Your task to perform on an android device: Open eBay Image 0: 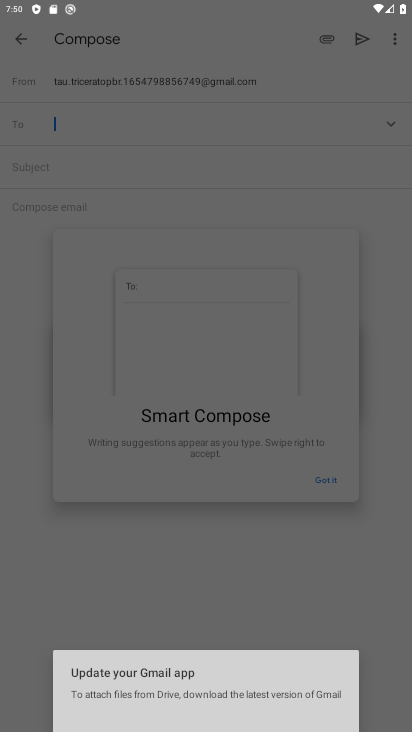
Step 0: press home button
Your task to perform on an android device: Open eBay Image 1: 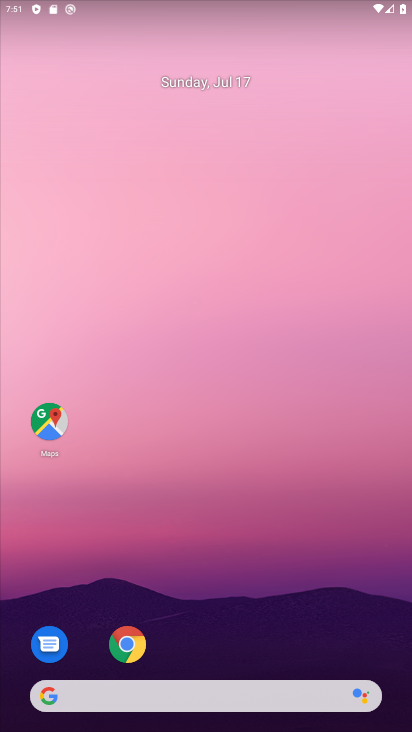
Step 1: click (120, 641)
Your task to perform on an android device: Open eBay Image 2: 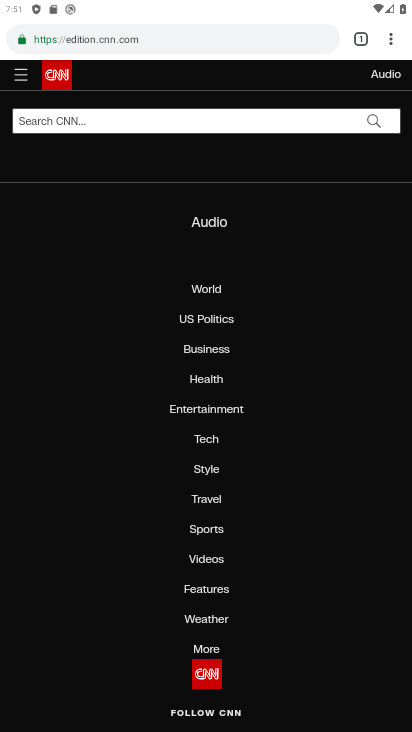
Step 2: click (194, 31)
Your task to perform on an android device: Open eBay Image 3: 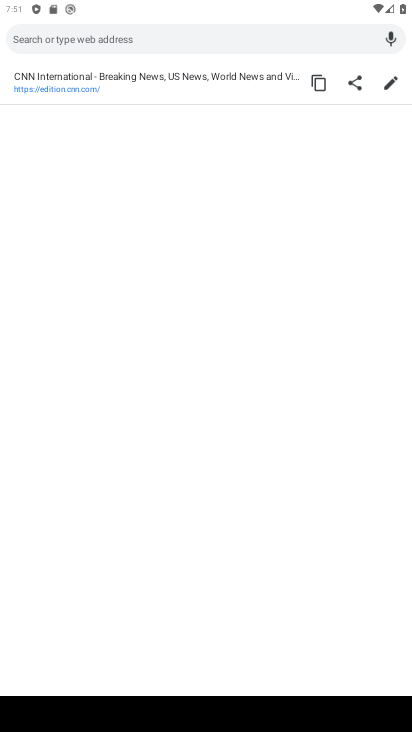
Step 3: type "ebay"
Your task to perform on an android device: Open eBay Image 4: 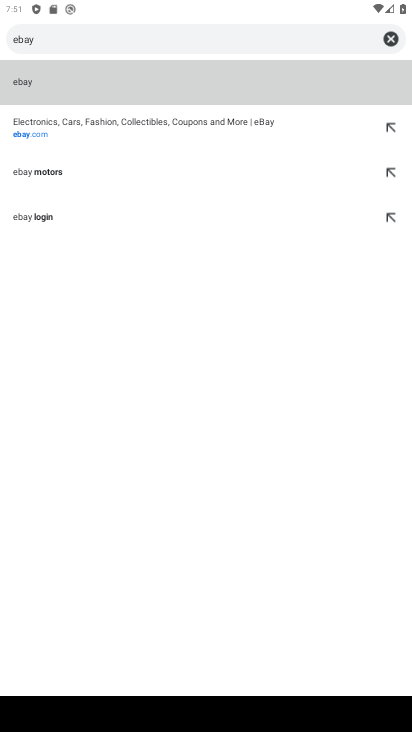
Step 4: click (46, 87)
Your task to perform on an android device: Open eBay Image 5: 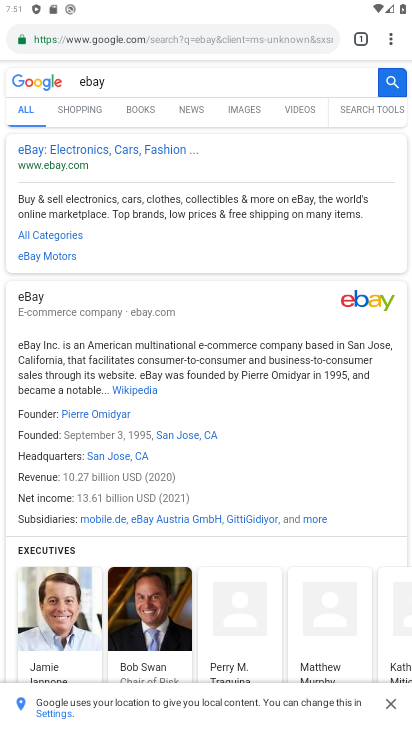
Step 5: click (111, 146)
Your task to perform on an android device: Open eBay Image 6: 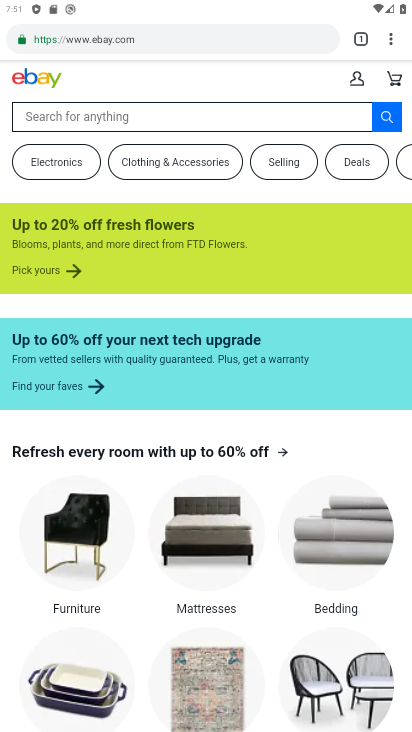
Step 6: task complete